Your task to perform on an android device: Find coffee shops on Maps Image 0: 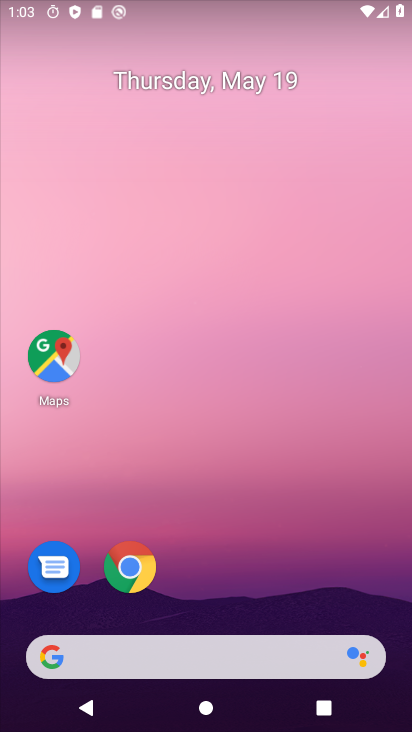
Step 0: press home button
Your task to perform on an android device: Find coffee shops on Maps Image 1: 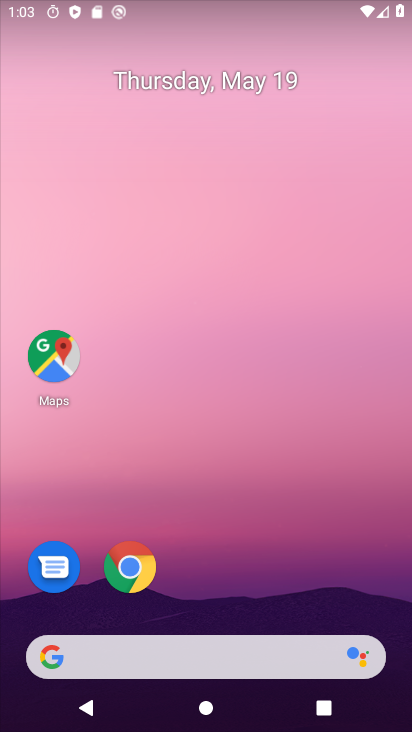
Step 1: click (46, 358)
Your task to perform on an android device: Find coffee shops on Maps Image 2: 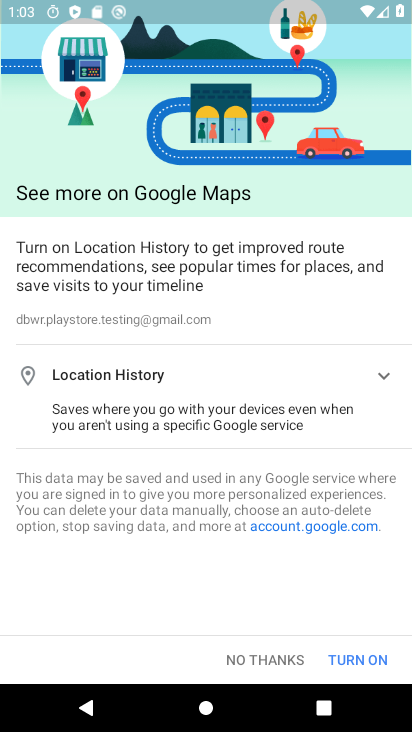
Step 2: click (251, 655)
Your task to perform on an android device: Find coffee shops on Maps Image 3: 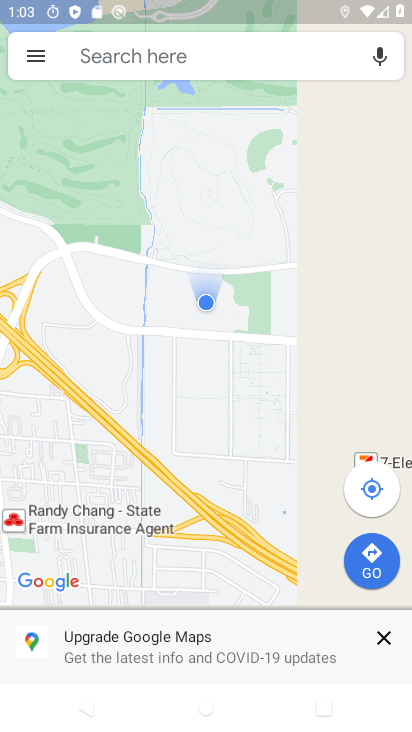
Step 3: click (192, 61)
Your task to perform on an android device: Find coffee shops on Maps Image 4: 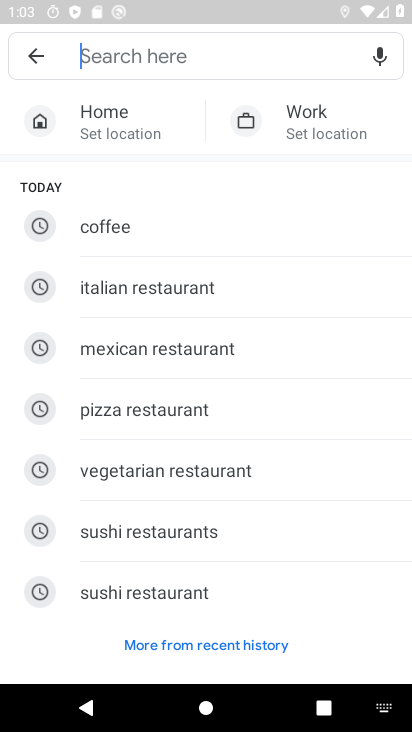
Step 4: click (113, 227)
Your task to perform on an android device: Find coffee shops on Maps Image 5: 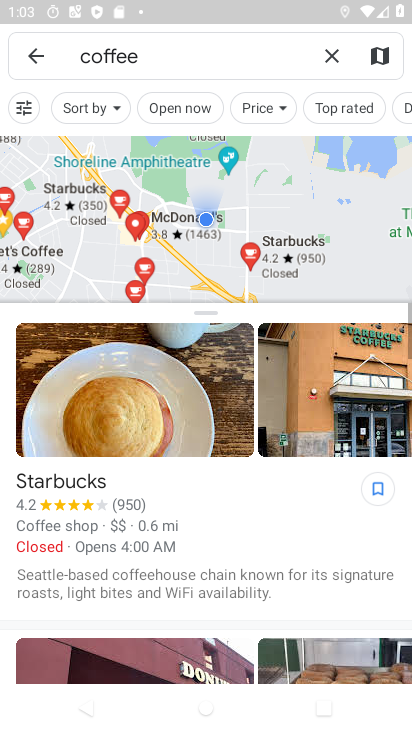
Step 5: task complete